Your task to perform on an android device: turn off airplane mode Image 0: 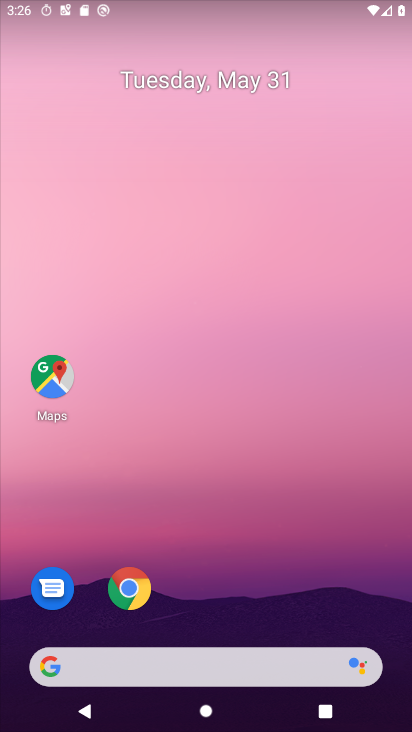
Step 0: drag from (192, 642) to (236, 52)
Your task to perform on an android device: turn off airplane mode Image 1: 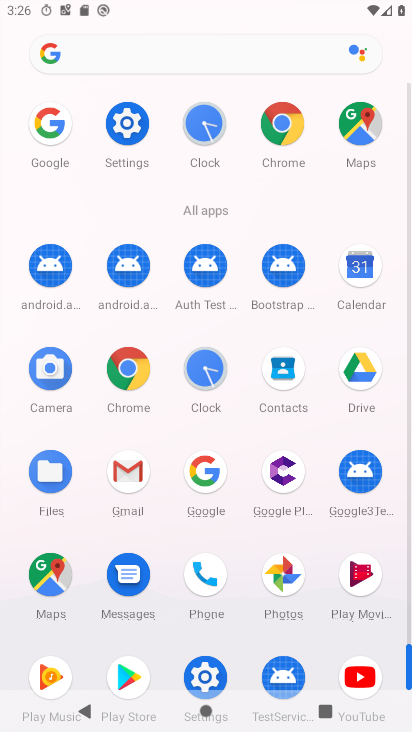
Step 1: click (139, 151)
Your task to perform on an android device: turn off airplane mode Image 2: 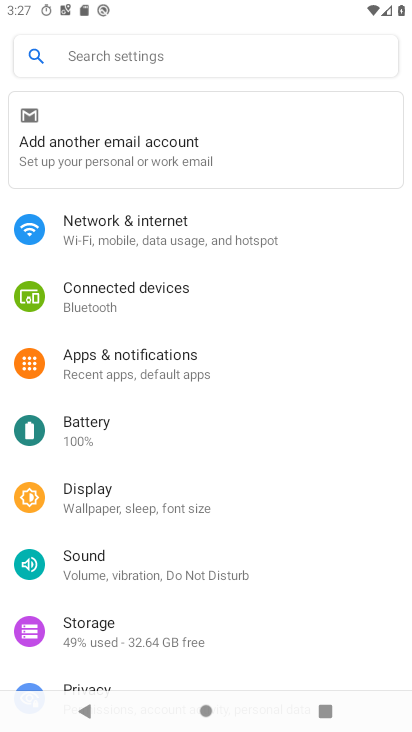
Step 2: click (169, 224)
Your task to perform on an android device: turn off airplane mode Image 3: 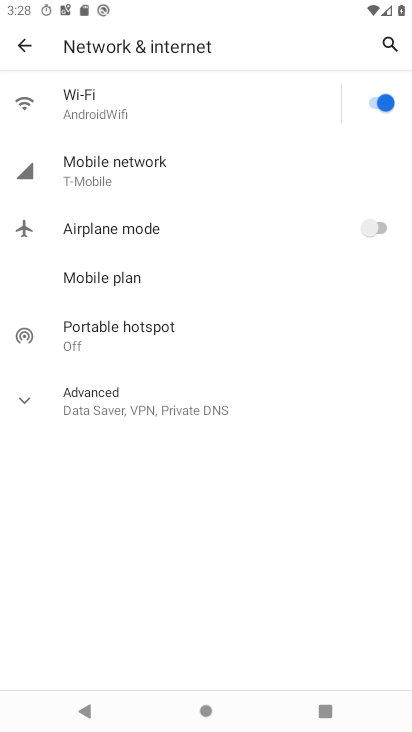
Step 3: task complete